Your task to perform on an android device: Open Google Chrome and open the bookmarks view Image 0: 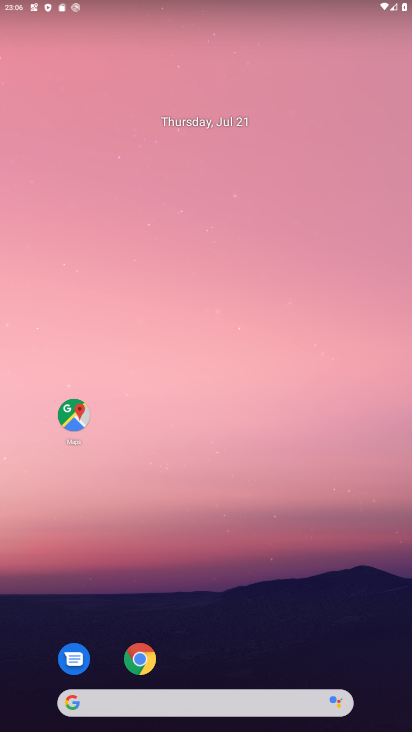
Step 0: drag from (300, 634) to (228, 11)
Your task to perform on an android device: Open Google Chrome and open the bookmarks view Image 1: 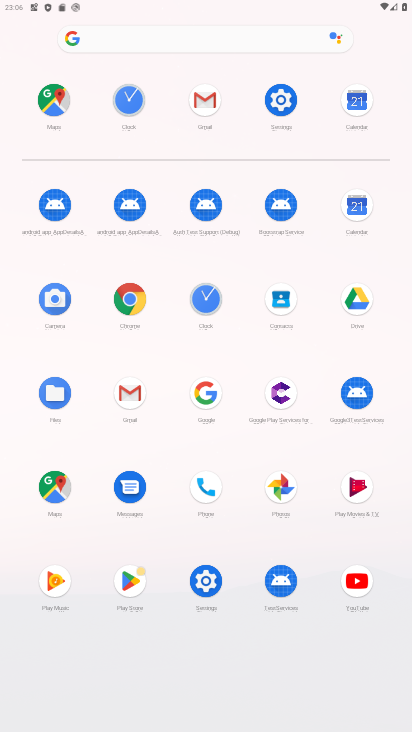
Step 1: click (125, 298)
Your task to perform on an android device: Open Google Chrome and open the bookmarks view Image 2: 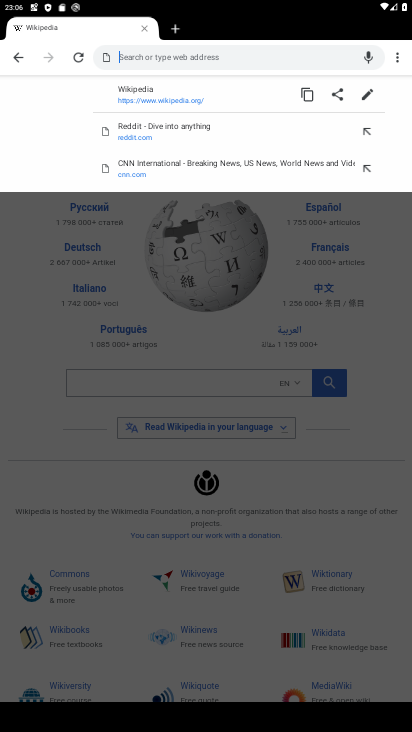
Step 2: click (397, 53)
Your task to perform on an android device: Open Google Chrome and open the bookmarks view Image 3: 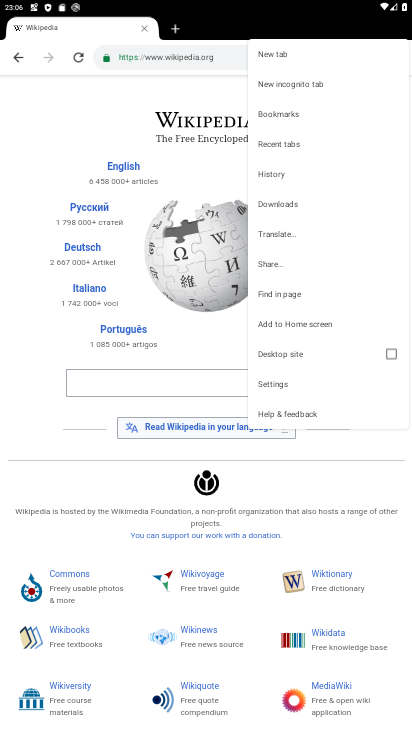
Step 3: click (285, 113)
Your task to perform on an android device: Open Google Chrome and open the bookmarks view Image 4: 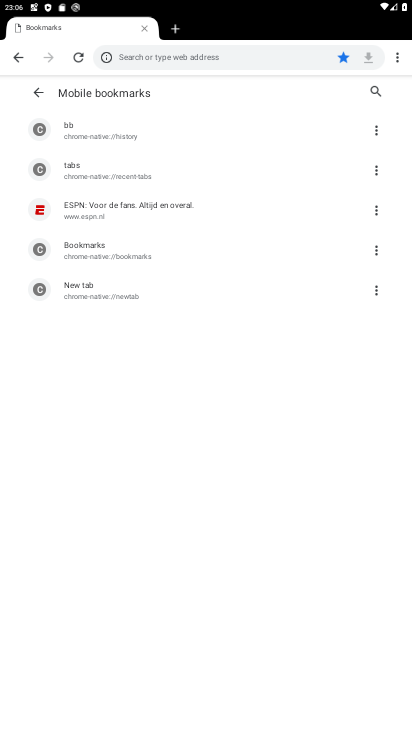
Step 4: task complete